Your task to perform on an android device: Search for Mexican restaurants on Maps Image 0: 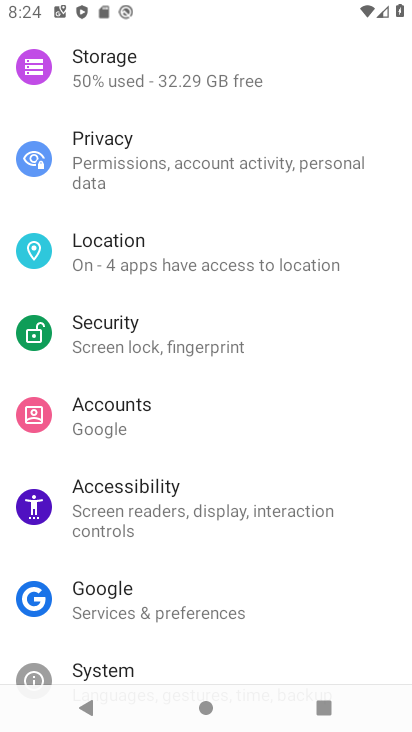
Step 0: press home button
Your task to perform on an android device: Search for Mexican restaurants on Maps Image 1: 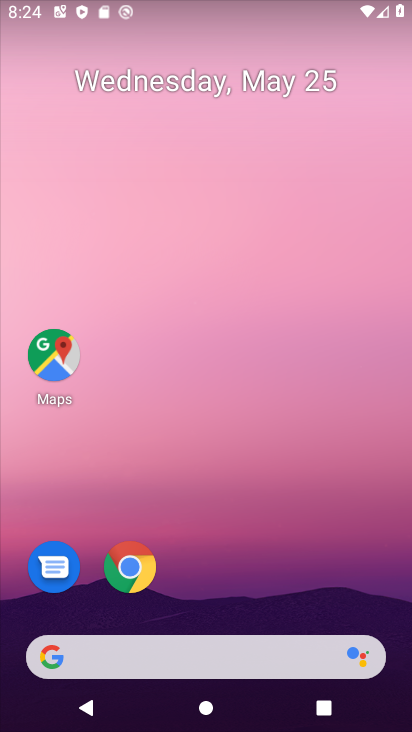
Step 1: click (52, 391)
Your task to perform on an android device: Search for Mexican restaurants on Maps Image 2: 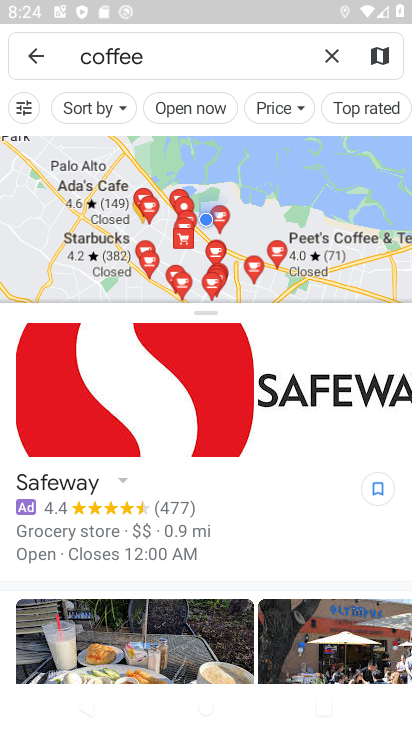
Step 2: click (327, 57)
Your task to perform on an android device: Search for Mexican restaurants on Maps Image 3: 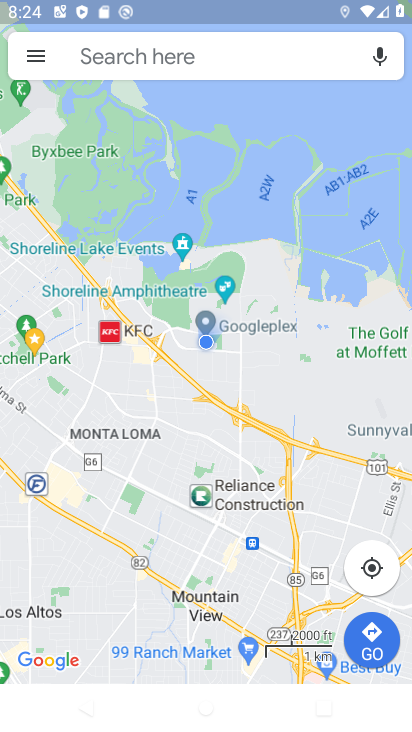
Step 3: click (261, 57)
Your task to perform on an android device: Search for Mexican restaurants on Maps Image 4: 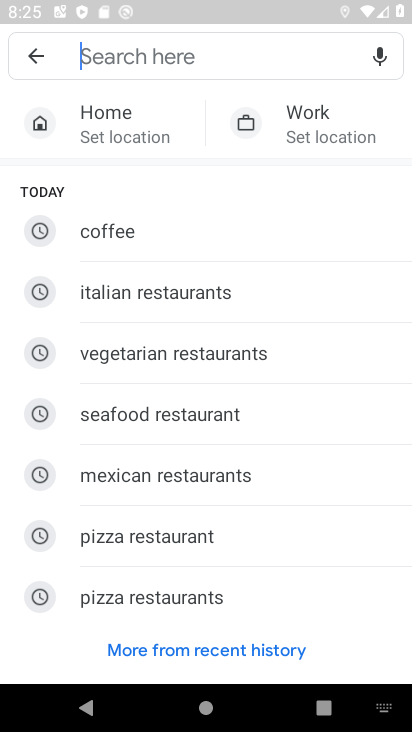
Step 4: click (217, 459)
Your task to perform on an android device: Search for Mexican restaurants on Maps Image 5: 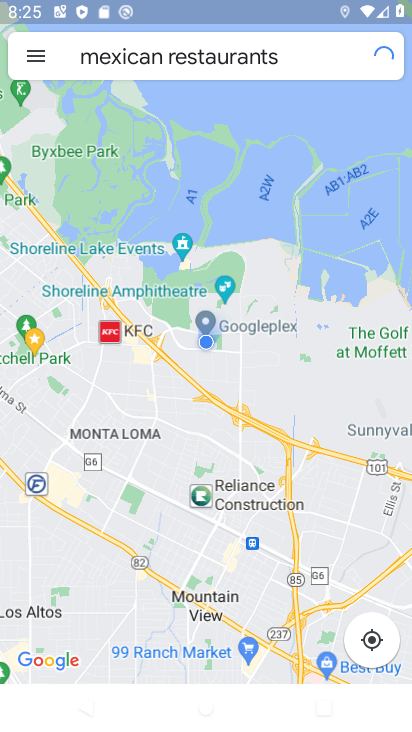
Step 5: task complete